Your task to perform on an android device: Open the phone app and click the voicemail tab. Image 0: 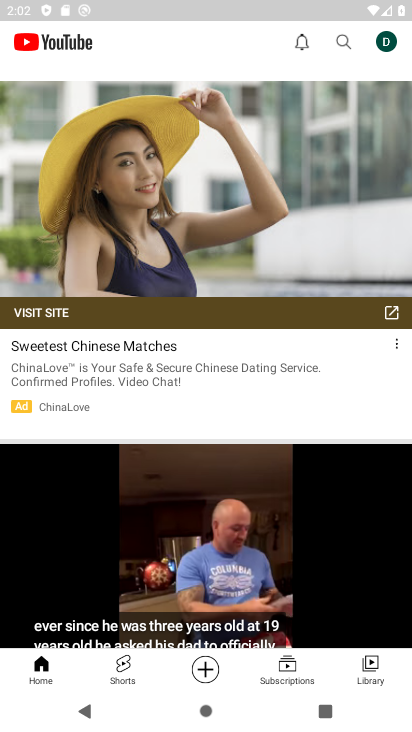
Step 0: press home button
Your task to perform on an android device: Open the phone app and click the voicemail tab. Image 1: 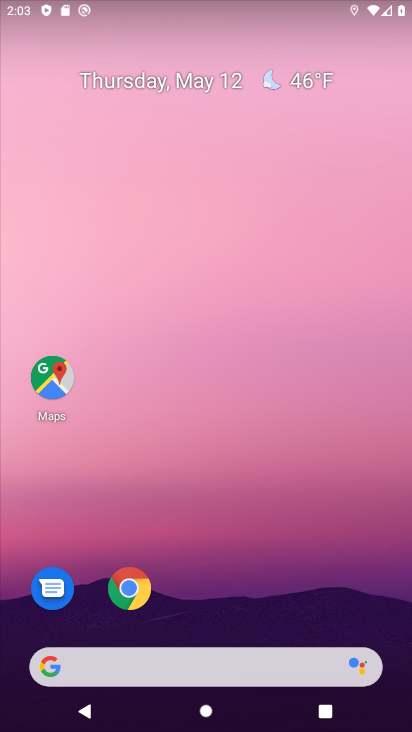
Step 1: drag from (337, 628) to (232, 116)
Your task to perform on an android device: Open the phone app and click the voicemail tab. Image 2: 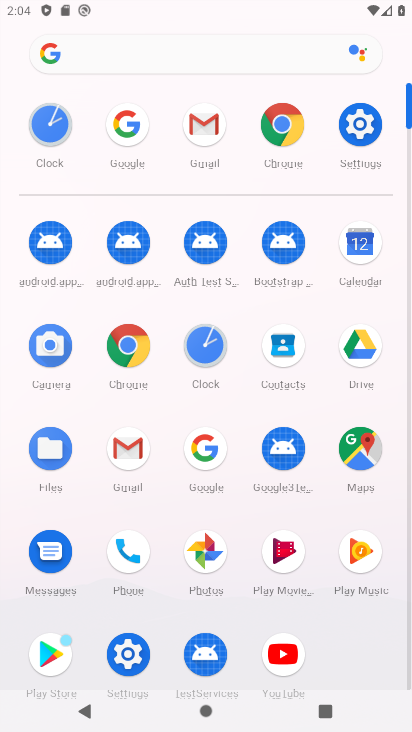
Step 2: click (136, 570)
Your task to perform on an android device: Open the phone app and click the voicemail tab. Image 3: 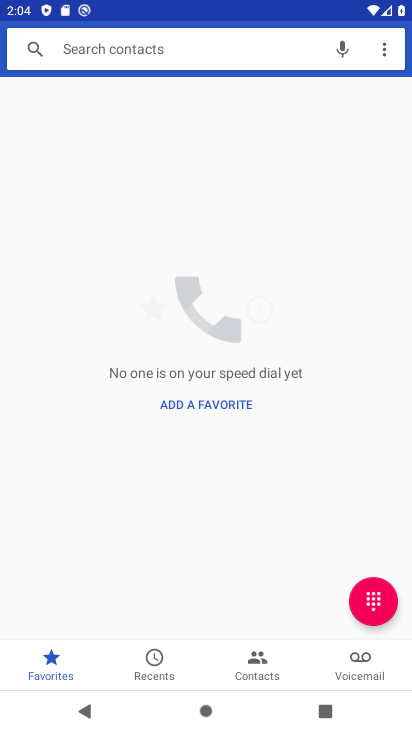
Step 3: click (367, 663)
Your task to perform on an android device: Open the phone app and click the voicemail tab. Image 4: 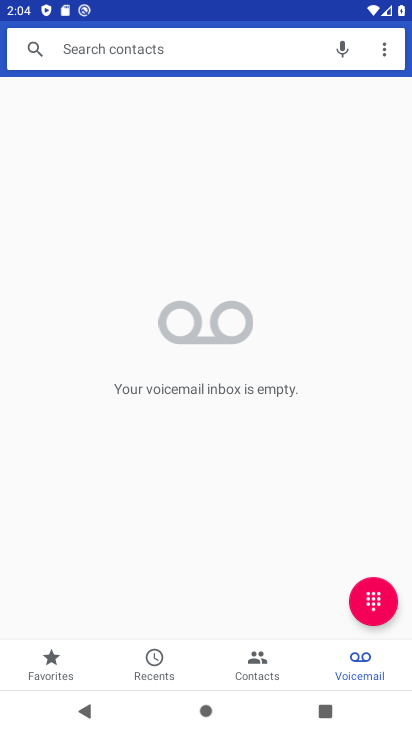
Step 4: task complete